Your task to perform on an android device: Open maps Image 0: 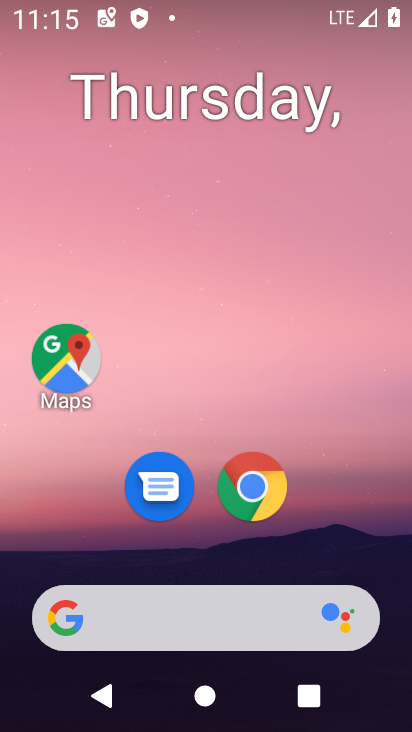
Step 0: click (48, 360)
Your task to perform on an android device: Open maps Image 1: 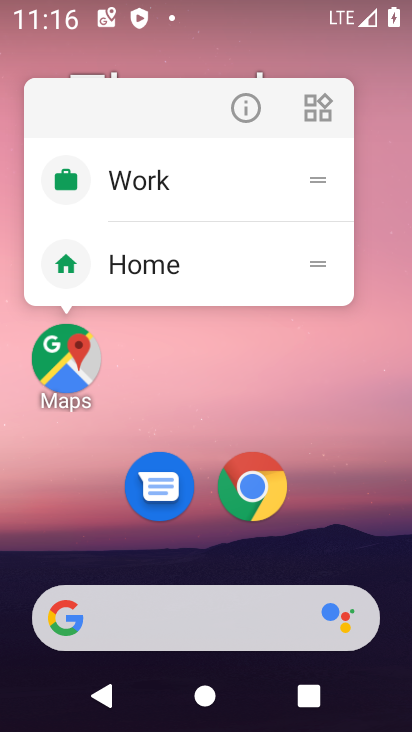
Step 1: click (76, 346)
Your task to perform on an android device: Open maps Image 2: 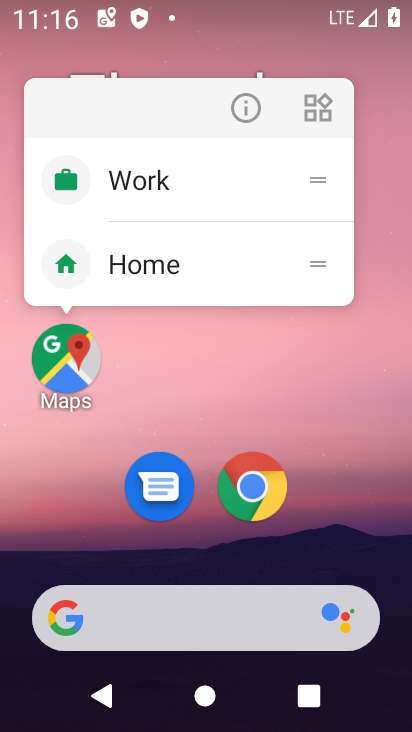
Step 2: click (41, 350)
Your task to perform on an android device: Open maps Image 3: 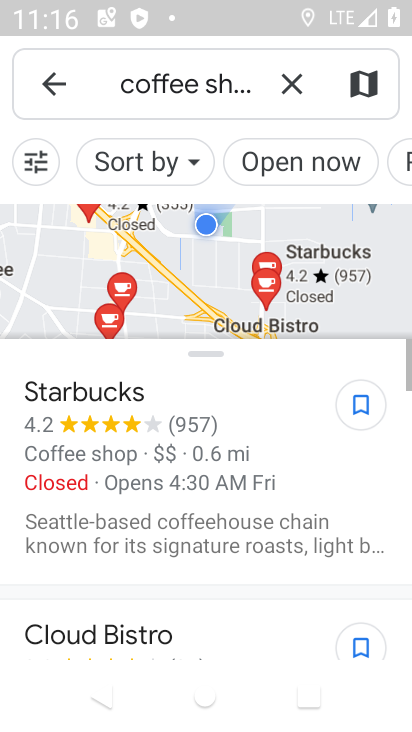
Step 3: task complete